Your task to perform on an android device: Open network settings Image 0: 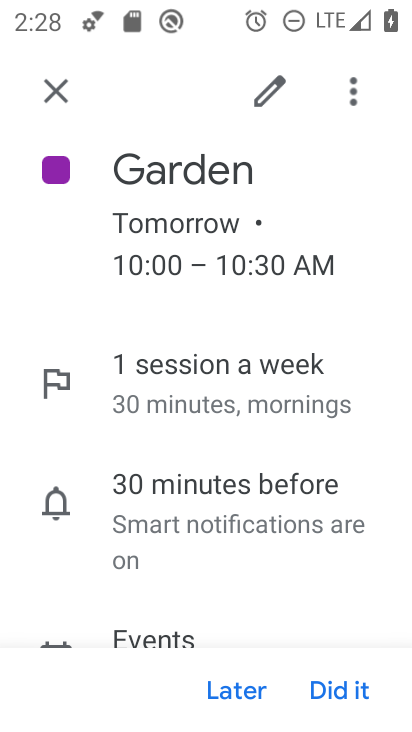
Step 0: press home button
Your task to perform on an android device: Open network settings Image 1: 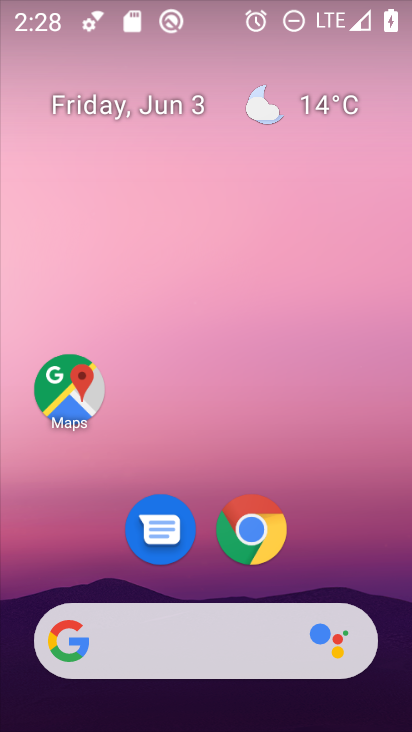
Step 1: drag from (327, 564) to (336, 215)
Your task to perform on an android device: Open network settings Image 2: 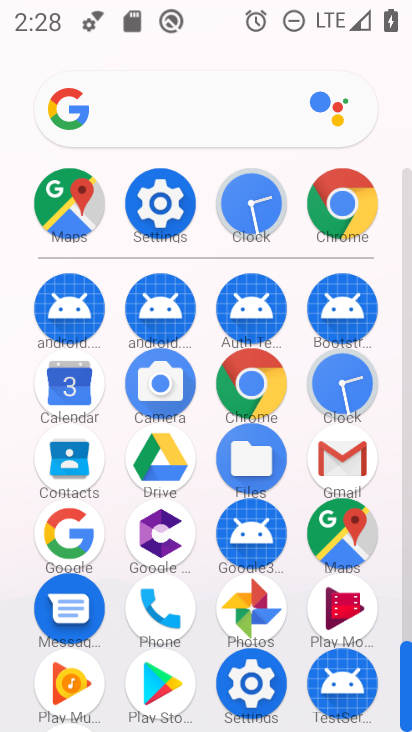
Step 2: click (175, 220)
Your task to perform on an android device: Open network settings Image 3: 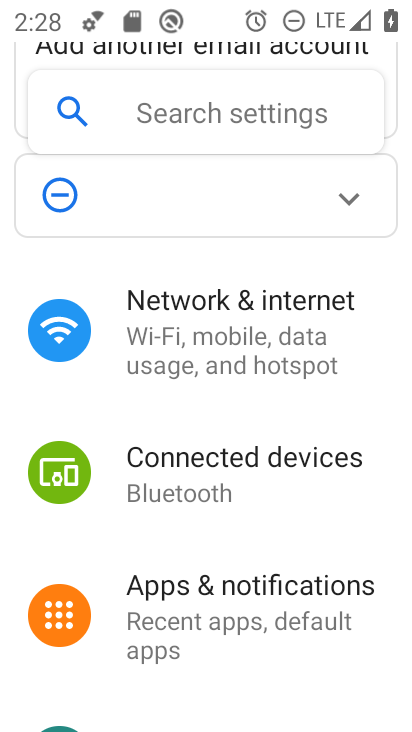
Step 3: drag from (356, 500) to (369, 339)
Your task to perform on an android device: Open network settings Image 4: 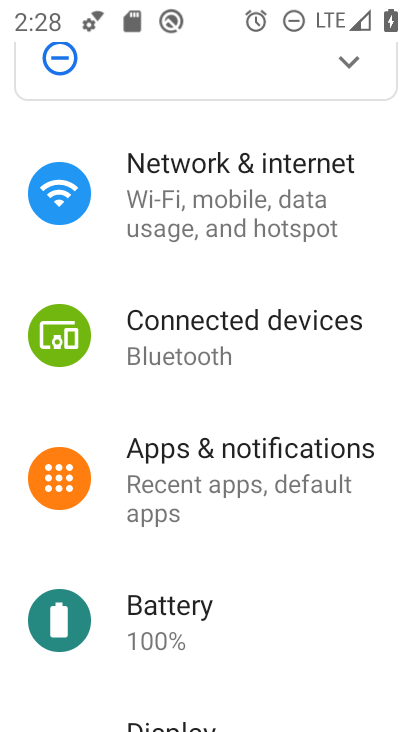
Step 4: drag from (354, 553) to (358, 400)
Your task to perform on an android device: Open network settings Image 5: 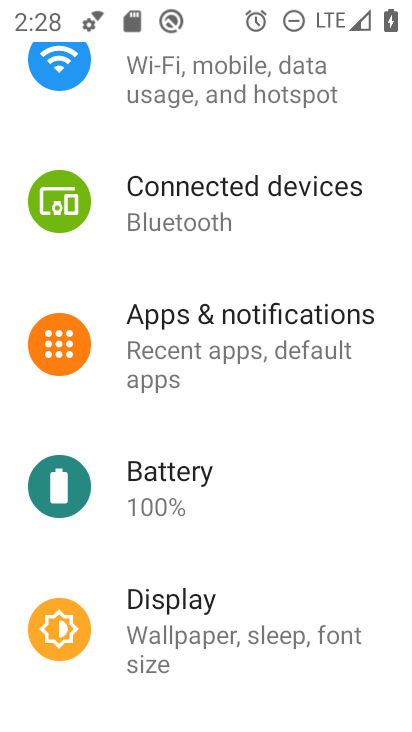
Step 5: drag from (344, 555) to (345, 391)
Your task to perform on an android device: Open network settings Image 6: 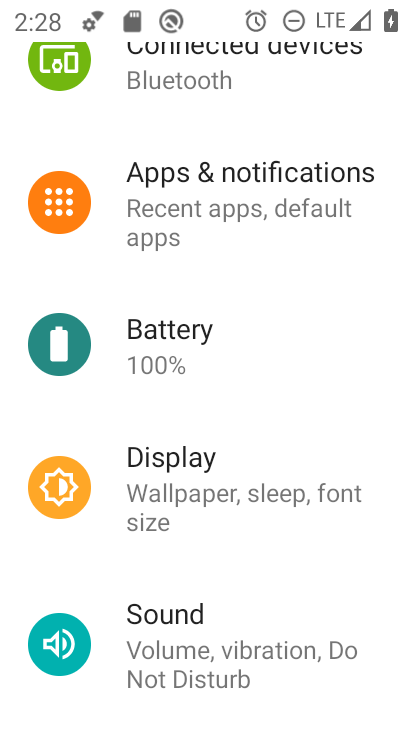
Step 6: drag from (358, 598) to (353, 426)
Your task to perform on an android device: Open network settings Image 7: 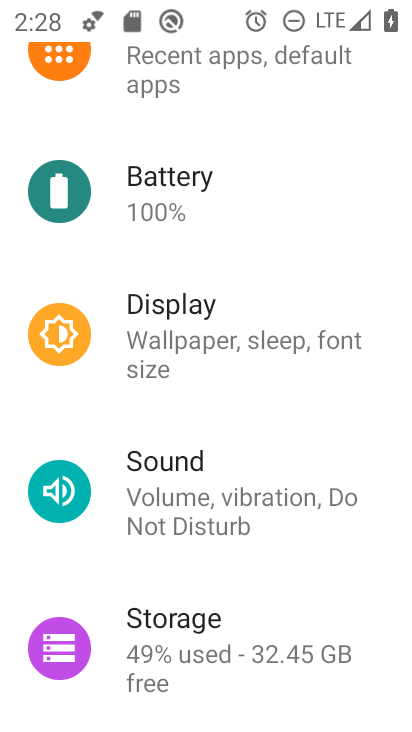
Step 7: drag from (364, 573) to (363, 389)
Your task to perform on an android device: Open network settings Image 8: 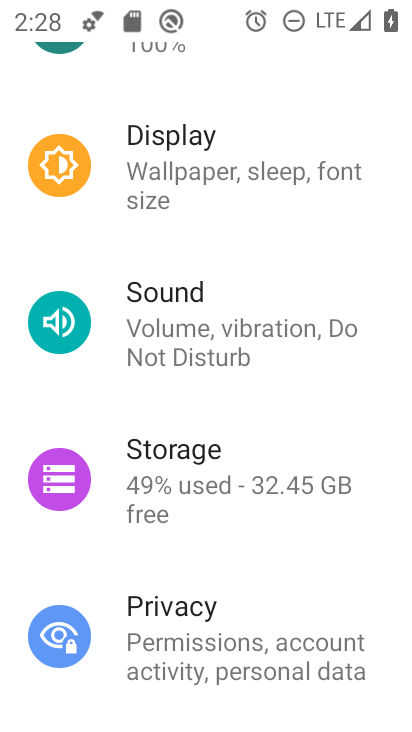
Step 8: drag from (362, 425) to (368, 296)
Your task to perform on an android device: Open network settings Image 9: 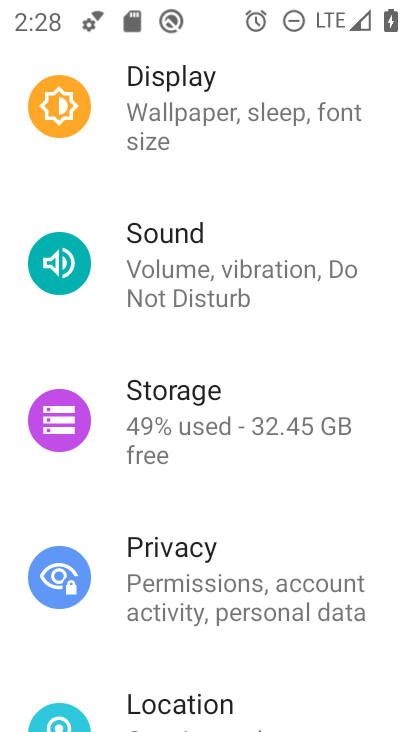
Step 9: drag from (367, 493) to (358, 327)
Your task to perform on an android device: Open network settings Image 10: 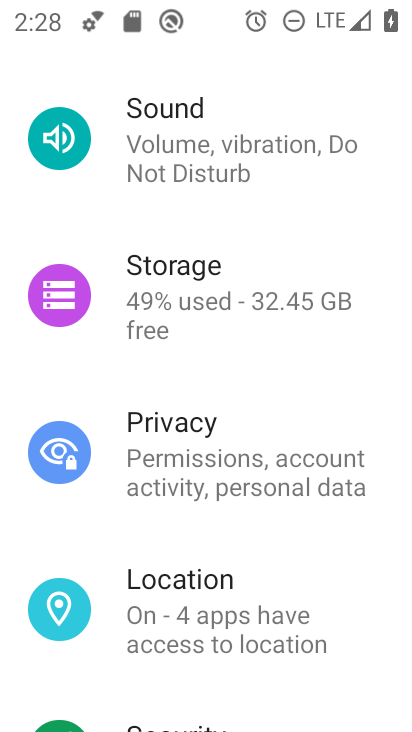
Step 10: drag from (360, 564) to (348, 371)
Your task to perform on an android device: Open network settings Image 11: 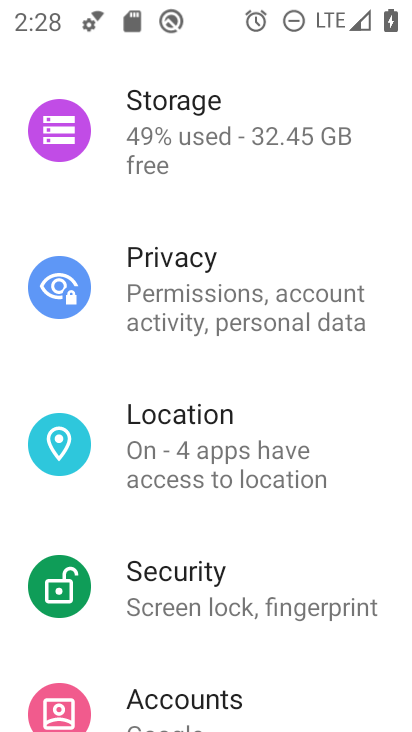
Step 11: drag from (348, 519) to (348, 322)
Your task to perform on an android device: Open network settings Image 12: 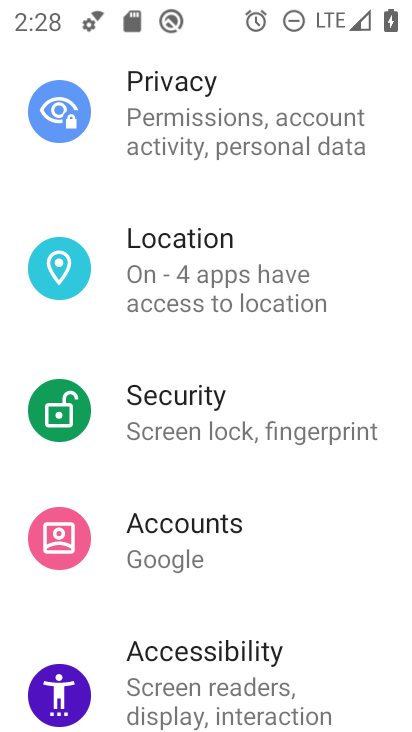
Step 12: drag from (357, 535) to (347, 320)
Your task to perform on an android device: Open network settings Image 13: 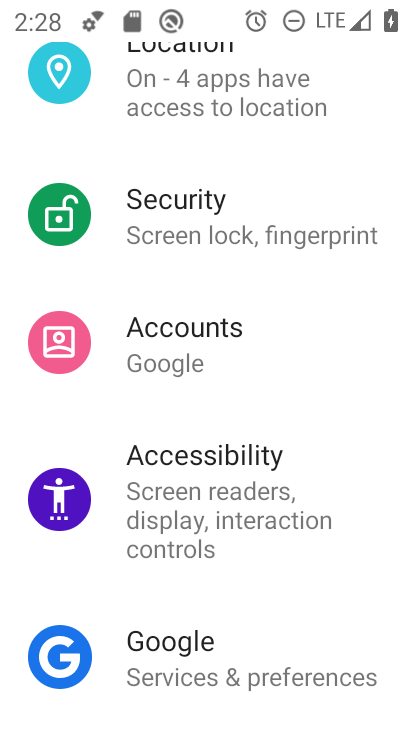
Step 13: drag from (367, 480) to (348, 306)
Your task to perform on an android device: Open network settings Image 14: 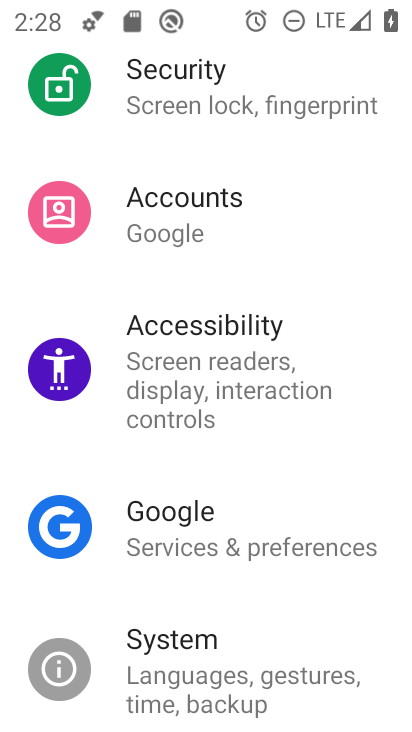
Step 14: drag from (351, 257) to (356, 400)
Your task to perform on an android device: Open network settings Image 15: 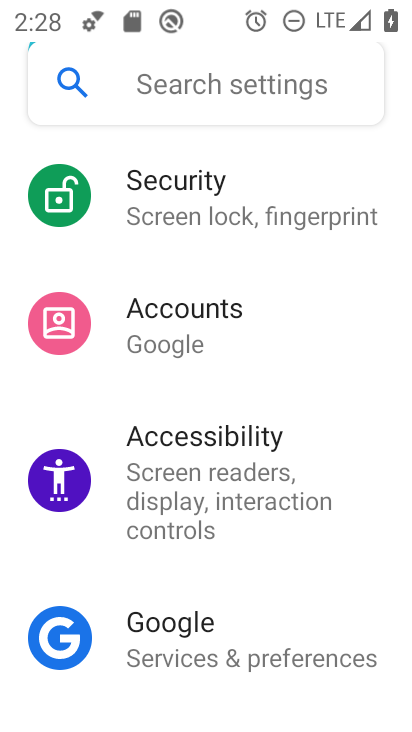
Step 15: drag from (358, 252) to (357, 386)
Your task to perform on an android device: Open network settings Image 16: 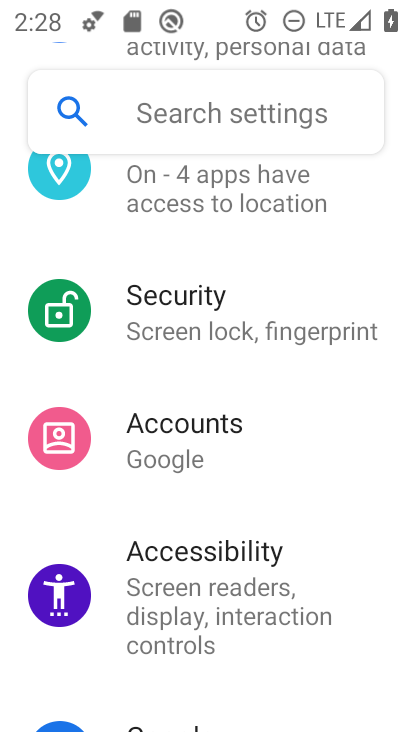
Step 16: drag from (351, 196) to (367, 408)
Your task to perform on an android device: Open network settings Image 17: 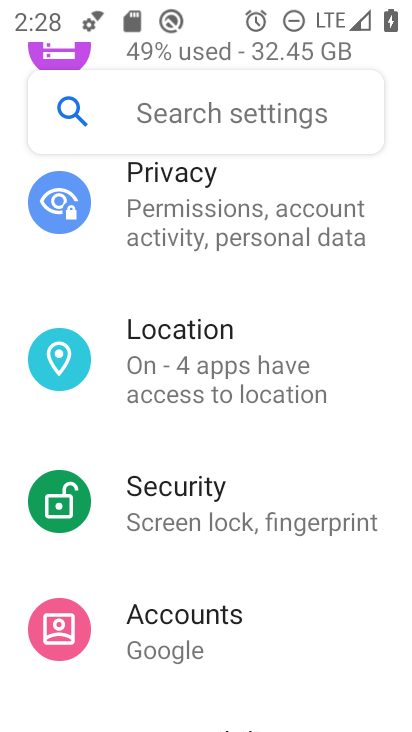
Step 17: drag from (382, 185) to (385, 410)
Your task to perform on an android device: Open network settings Image 18: 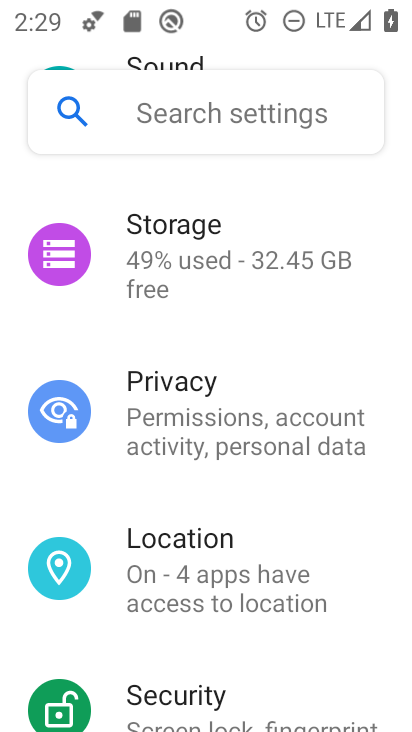
Step 18: drag from (367, 175) to (379, 399)
Your task to perform on an android device: Open network settings Image 19: 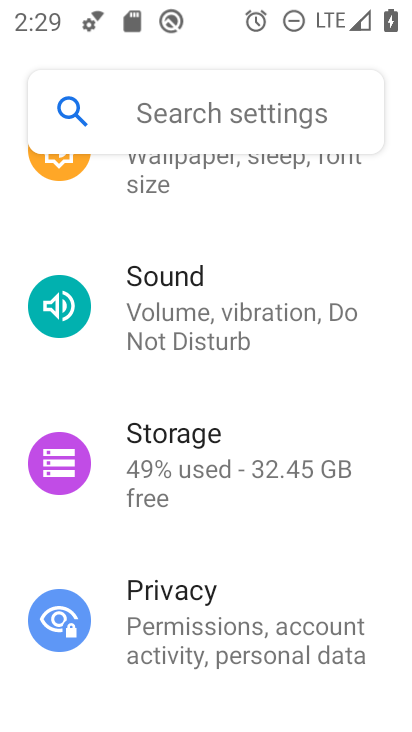
Step 19: drag from (353, 199) to (374, 352)
Your task to perform on an android device: Open network settings Image 20: 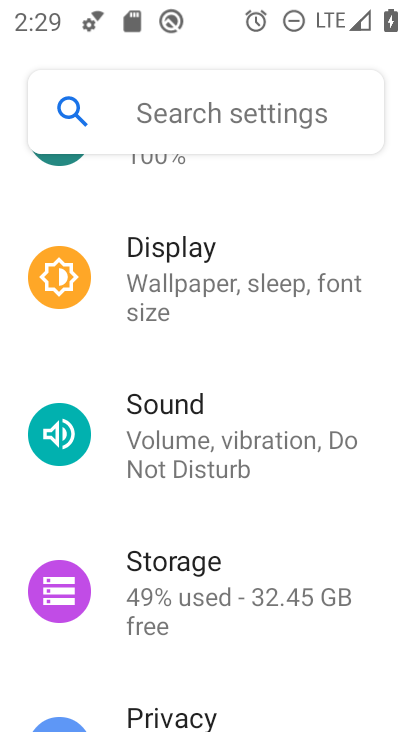
Step 20: drag from (370, 307) to (386, 440)
Your task to perform on an android device: Open network settings Image 21: 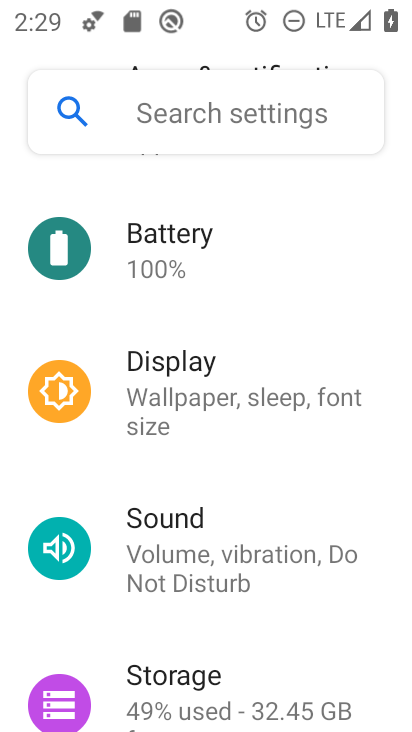
Step 21: drag from (354, 240) to (354, 379)
Your task to perform on an android device: Open network settings Image 22: 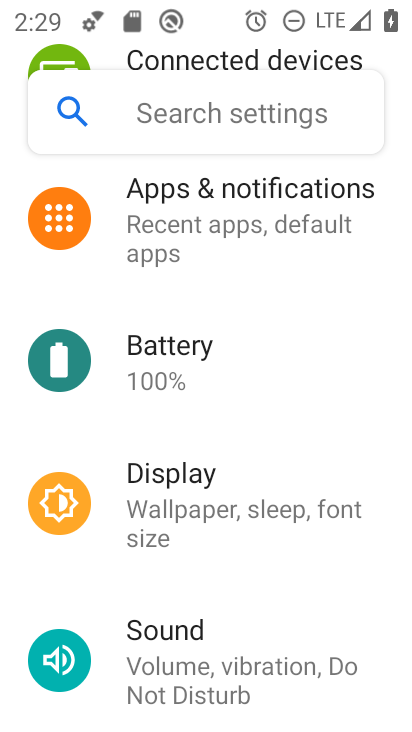
Step 22: drag from (370, 239) to (366, 410)
Your task to perform on an android device: Open network settings Image 23: 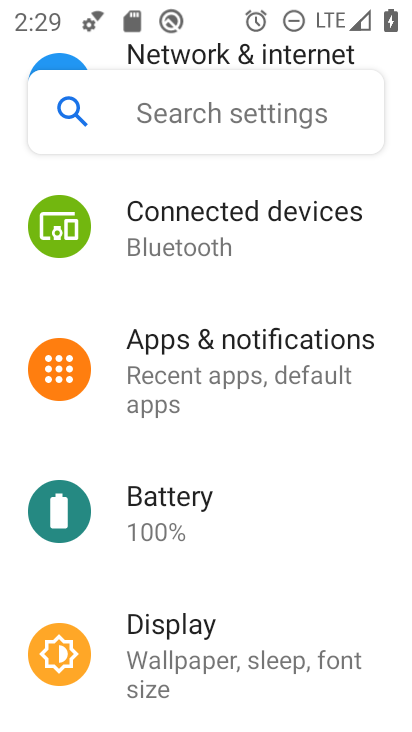
Step 23: drag from (367, 180) to (375, 364)
Your task to perform on an android device: Open network settings Image 24: 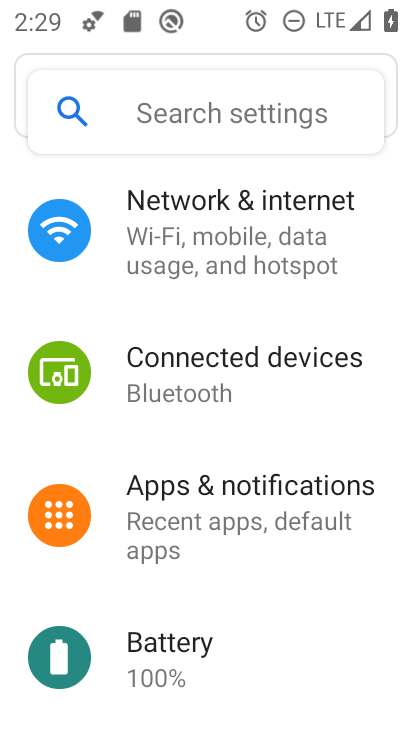
Step 24: click (281, 267)
Your task to perform on an android device: Open network settings Image 25: 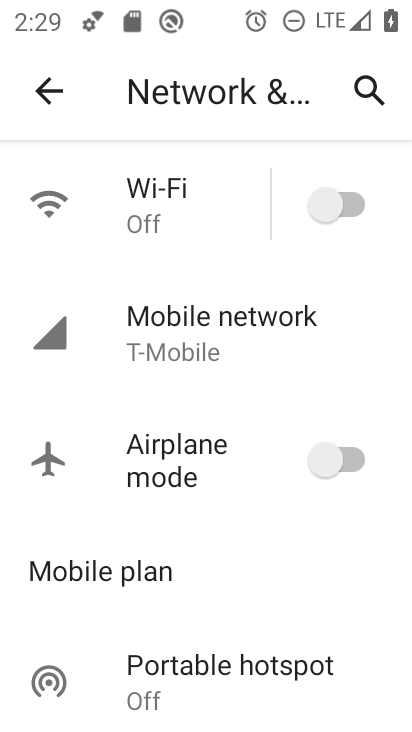
Step 25: task complete